Your task to perform on an android device: check out phone information Image 0: 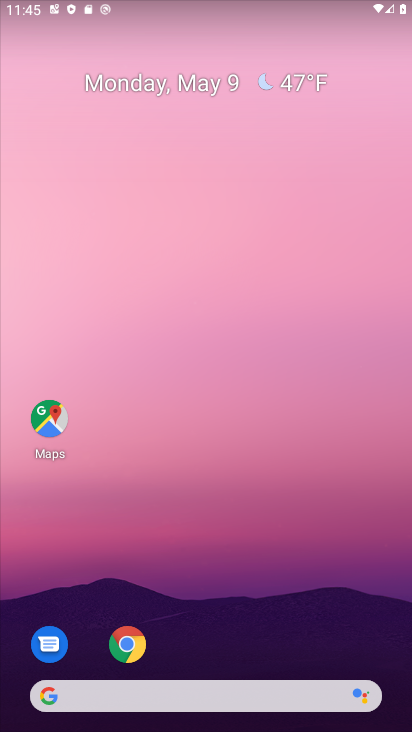
Step 0: drag from (43, 661) to (288, 185)
Your task to perform on an android device: check out phone information Image 1: 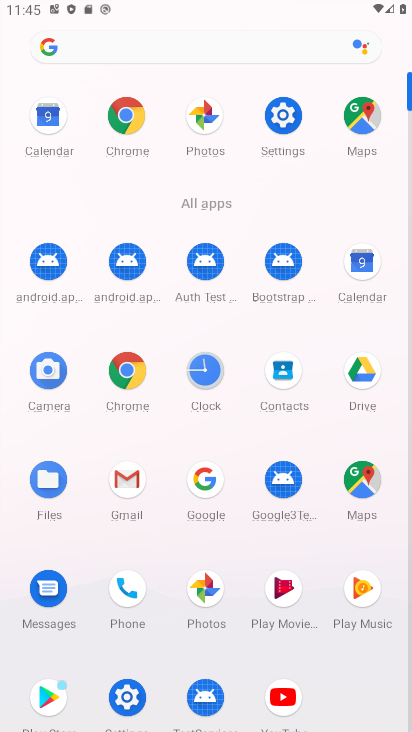
Step 1: click (135, 606)
Your task to perform on an android device: check out phone information Image 2: 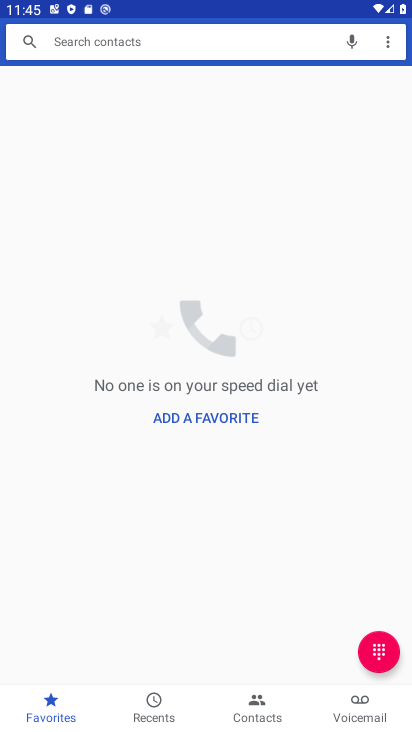
Step 2: click (147, 703)
Your task to perform on an android device: check out phone information Image 3: 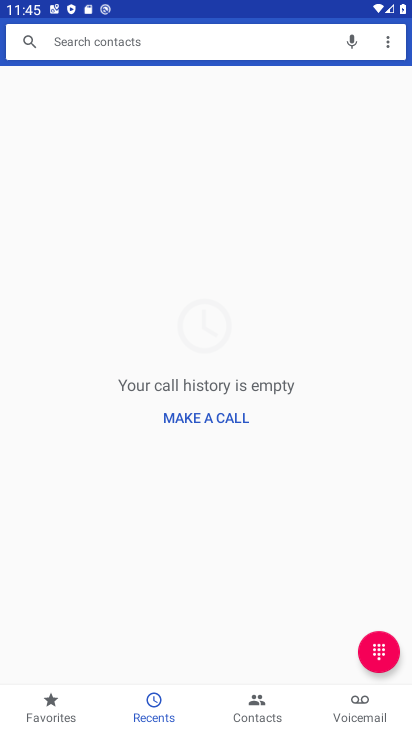
Step 3: task complete